Your task to perform on an android device: Turn off the flashlight Image 0: 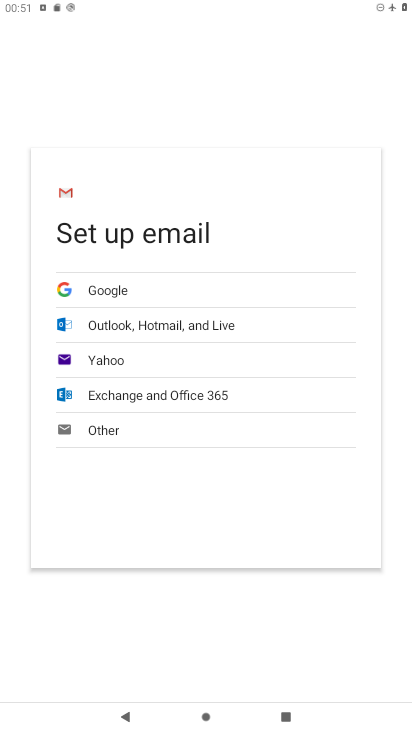
Step 0: press home button
Your task to perform on an android device: Turn off the flashlight Image 1: 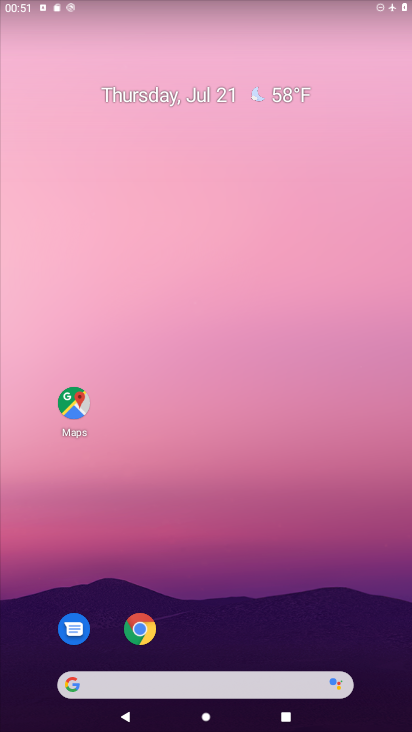
Step 1: drag from (191, 616) to (284, 188)
Your task to perform on an android device: Turn off the flashlight Image 2: 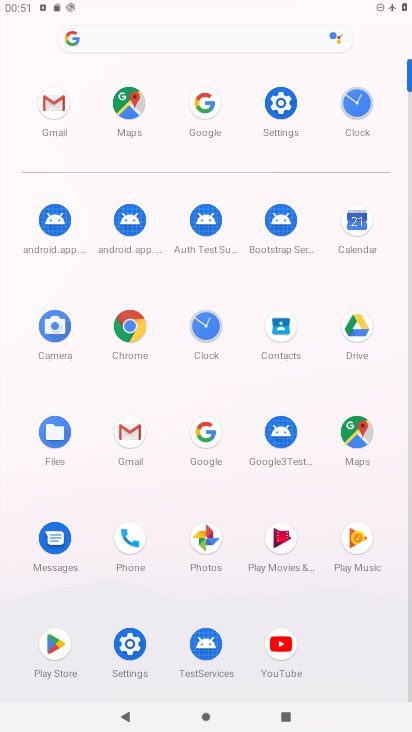
Step 2: click (298, 114)
Your task to perform on an android device: Turn off the flashlight Image 3: 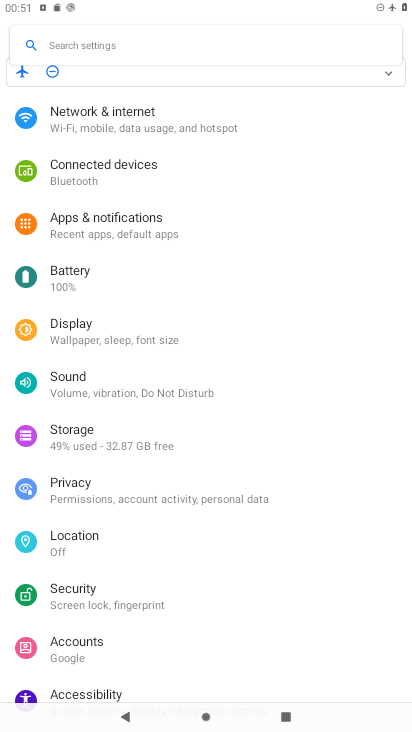
Step 3: task complete